Your task to perform on an android device: What's the weather going to be tomorrow? Image 0: 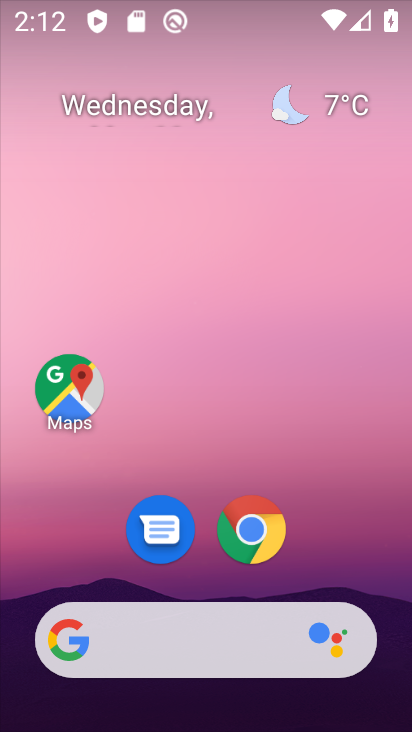
Step 0: click (132, 640)
Your task to perform on an android device: What's the weather going to be tomorrow? Image 1: 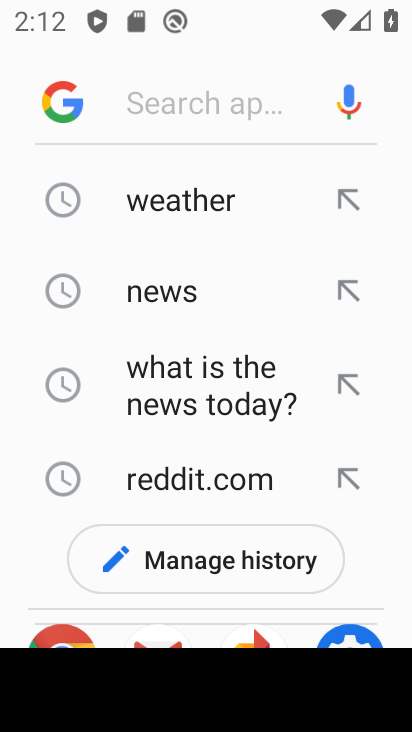
Step 1: click (126, 187)
Your task to perform on an android device: What's the weather going to be tomorrow? Image 2: 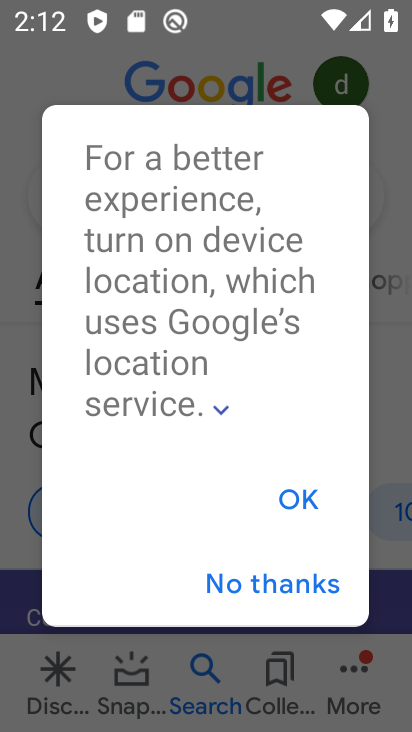
Step 2: click (278, 596)
Your task to perform on an android device: What's the weather going to be tomorrow? Image 3: 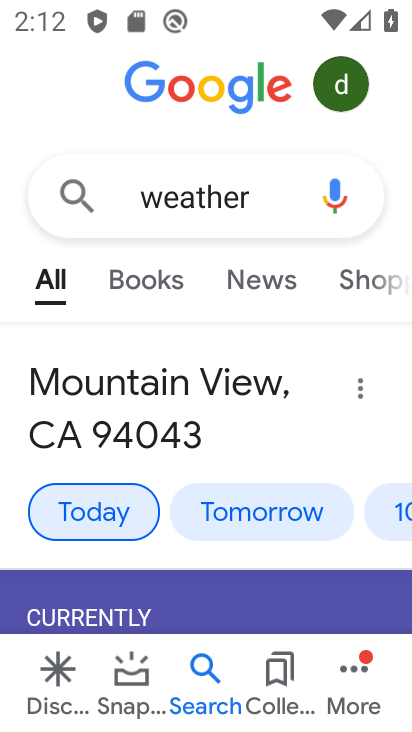
Step 3: click (257, 520)
Your task to perform on an android device: What's the weather going to be tomorrow? Image 4: 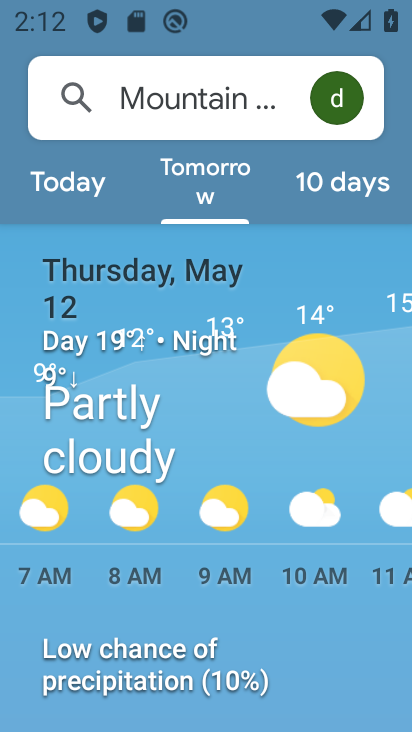
Step 4: task complete